Your task to perform on an android device: Open calendar and show me the second week of next month Image 0: 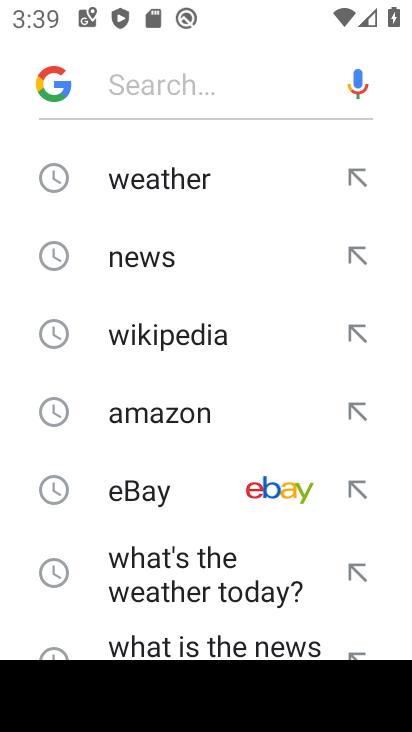
Step 0: press home button
Your task to perform on an android device: Open calendar and show me the second week of next month Image 1: 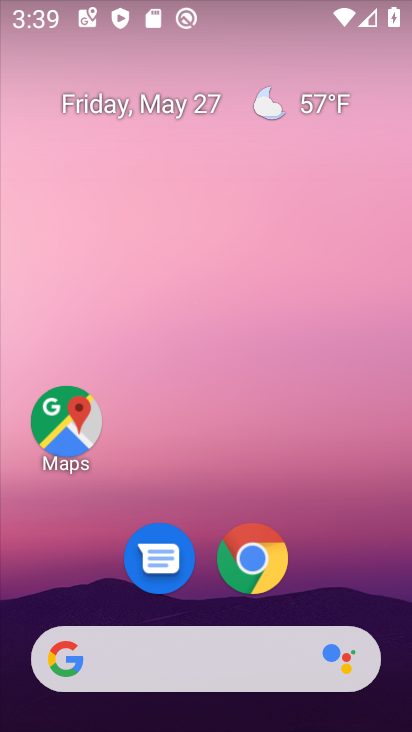
Step 1: drag from (354, 580) to (304, 234)
Your task to perform on an android device: Open calendar and show me the second week of next month Image 2: 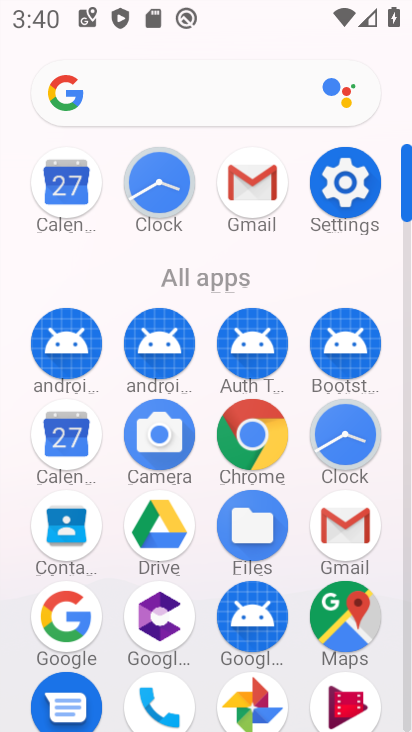
Step 2: click (348, 415)
Your task to perform on an android device: Open calendar and show me the second week of next month Image 3: 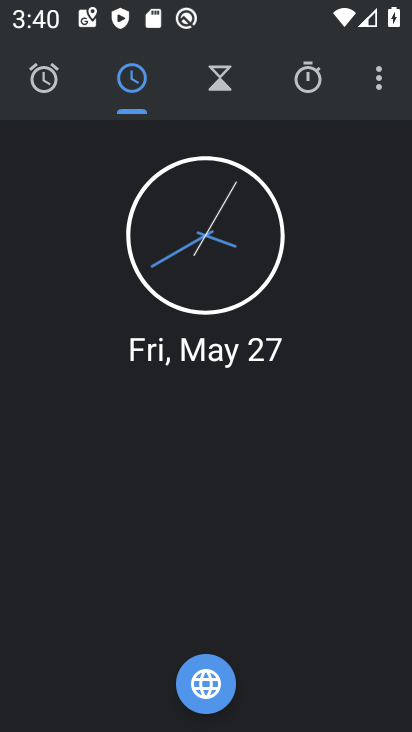
Step 3: click (387, 94)
Your task to perform on an android device: Open calendar and show me the second week of next month Image 4: 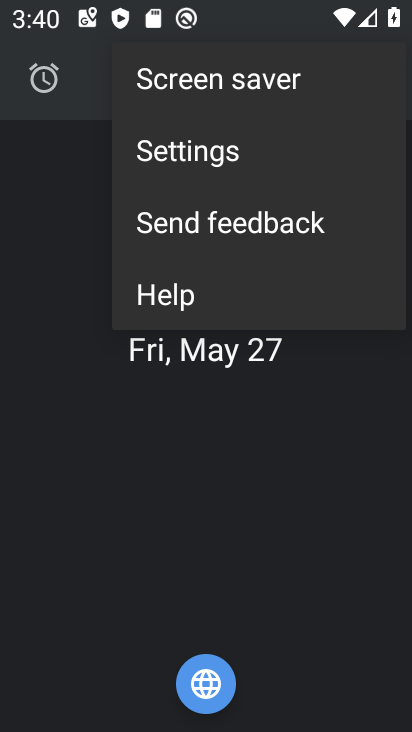
Step 4: click (307, 156)
Your task to perform on an android device: Open calendar and show me the second week of next month Image 5: 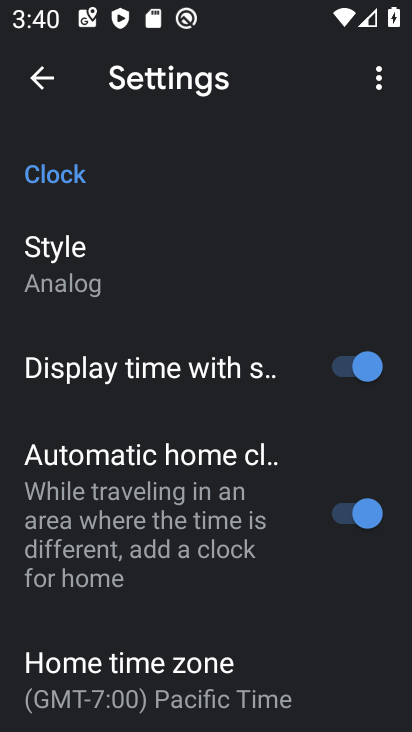
Step 5: click (27, 97)
Your task to perform on an android device: Open calendar and show me the second week of next month Image 6: 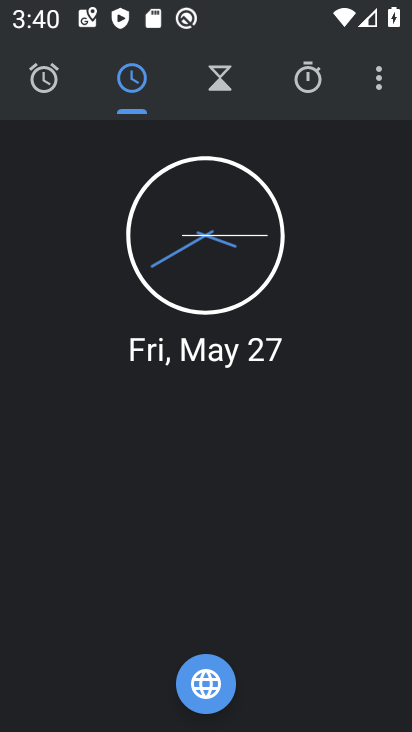
Step 6: task complete